Your task to perform on an android device: When is my next appointment? Image 0: 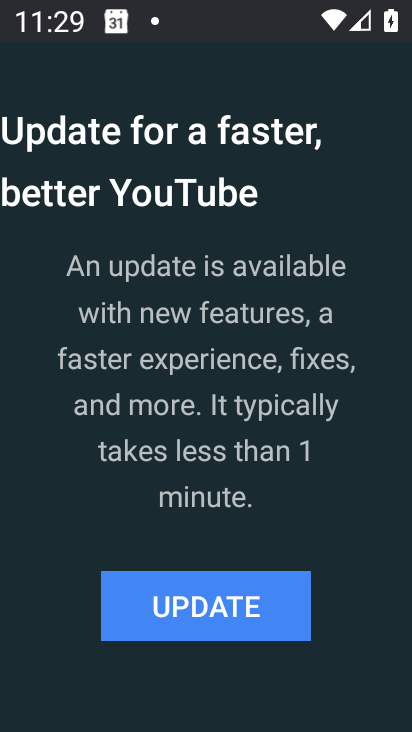
Step 0: press home button
Your task to perform on an android device: When is my next appointment? Image 1: 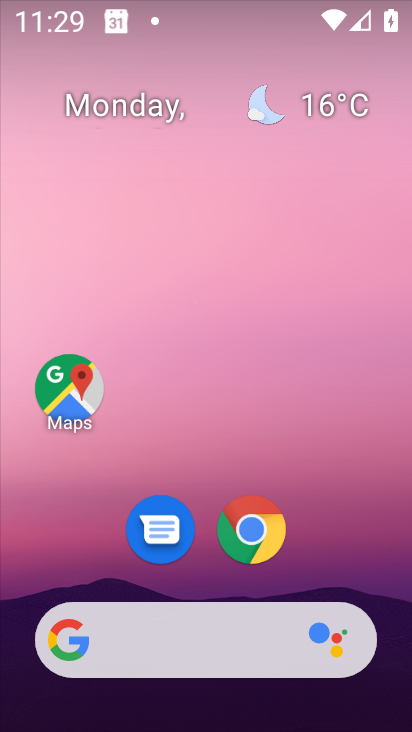
Step 1: drag from (239, 500) to (132, 445)
Your task to perform on an android device: When is my next appointment? Image 2: 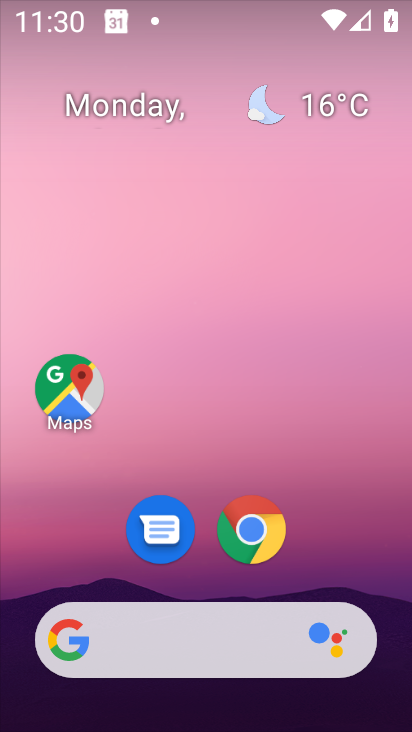
Step 2: drag from (176, 574) to (239, 114)
Your task to perform on an android device: When is my next appointment? Image 3: 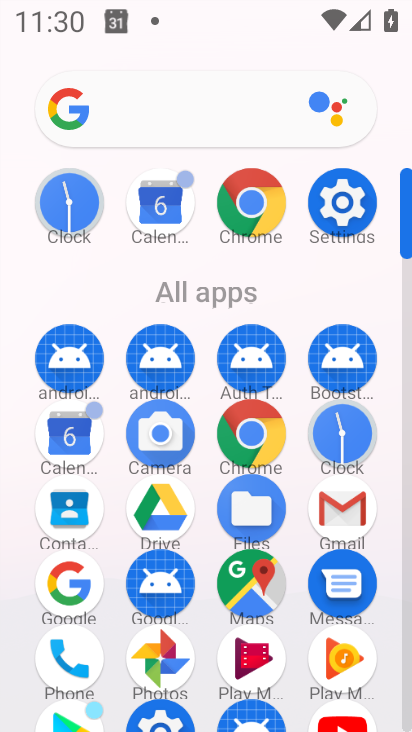
Step 3: click (67, 441)
Your task to perform on an android device: When is my next appointment? Image 4: 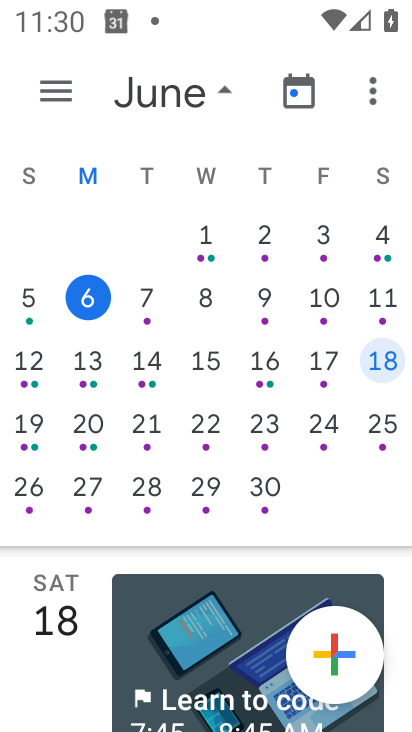
Step 4: click (73, 85)
Your task to perform on an android device: When is my next appointment? Image 5: 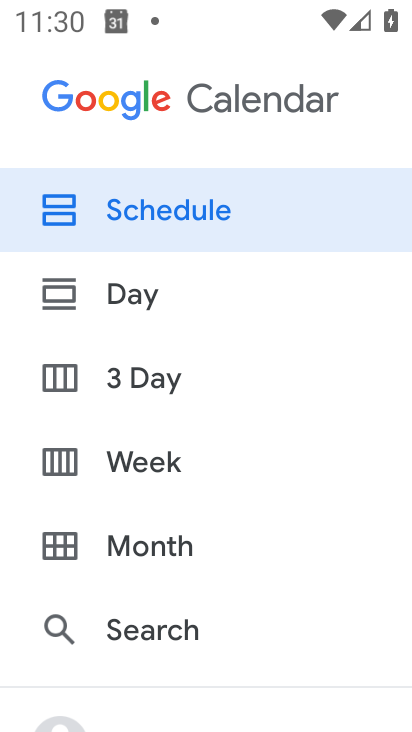
Step 5: drag from (90, 574) to (140, 175)
Your task to perform on an android device: When is my next appointment? Image 6: 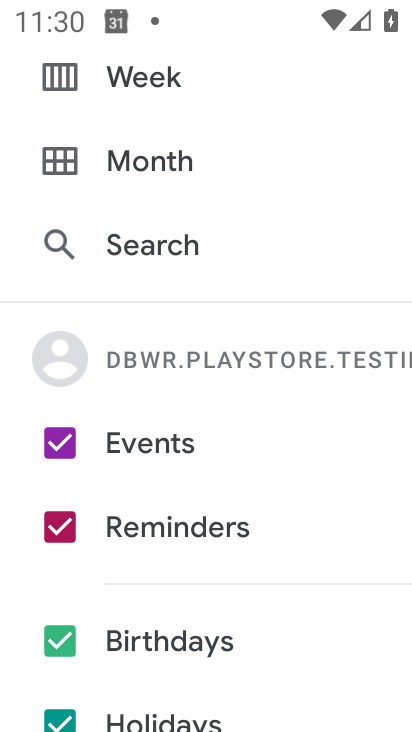
Step 6: drag from (107, 553) to (120, 284)
Your task to perform on an android device: When is my next appointment? Image 7: 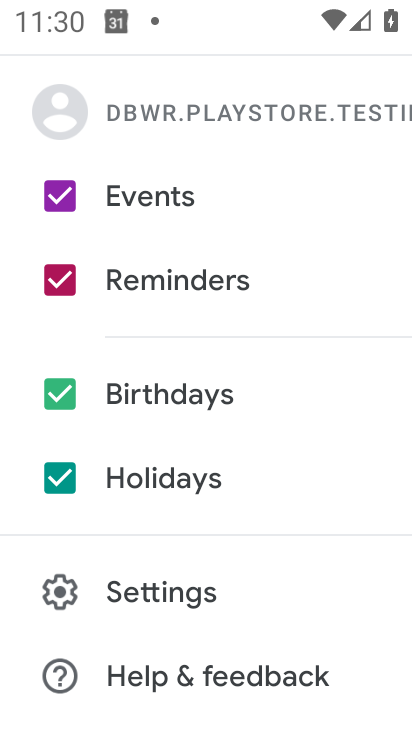
Step 7: click (61, 487)
Your task to perform on an android device: When is my next appointment? Image 8: 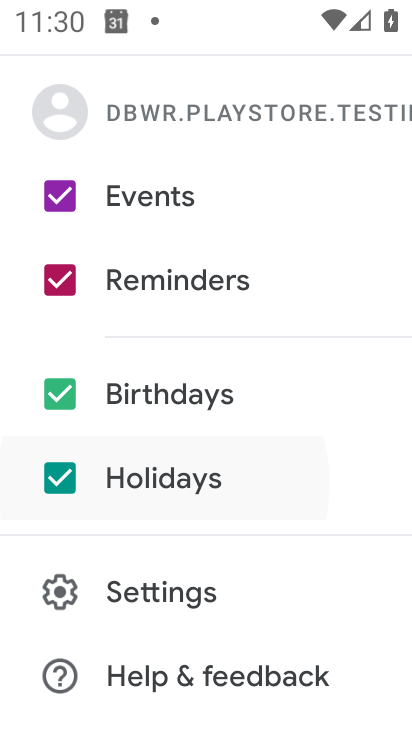
Step 8: click (62, 394)
Your task to perform on an android device: When is my next appointment? Image 9: 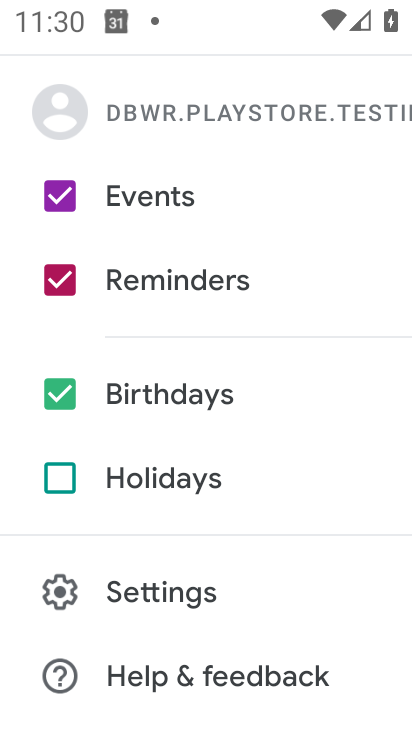
Step 9: click (52, 396)
Your task to perform on an android device: When is my next appointment? Image 10: 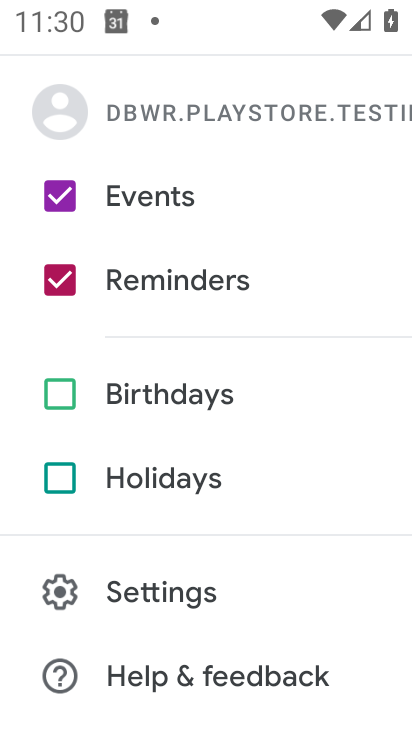
Step 10: drag from (232, 204) to (206, 678)
Your task to perform on an android device: When is my next appointment? Image 11: 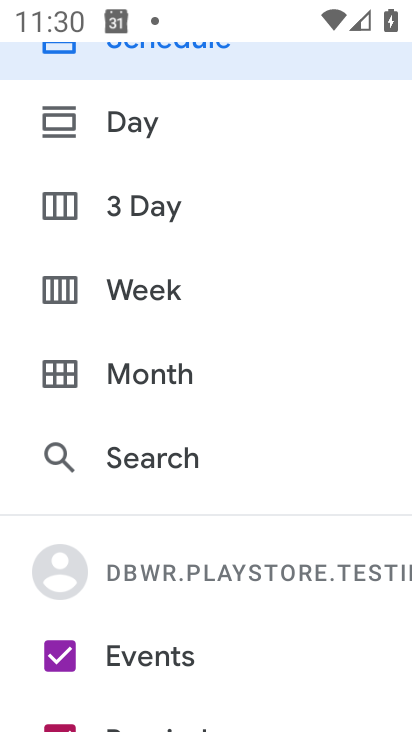
Step 11: click (162, 384)
Your task to perform on an android device: When is my next appointment? Image 12: 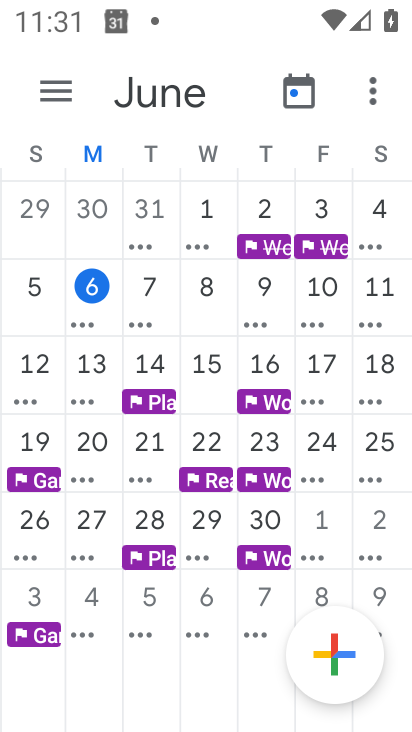
Step 12: task complete